Your task to perform on an android device: choose inbox layout in the gmail app Image 0: 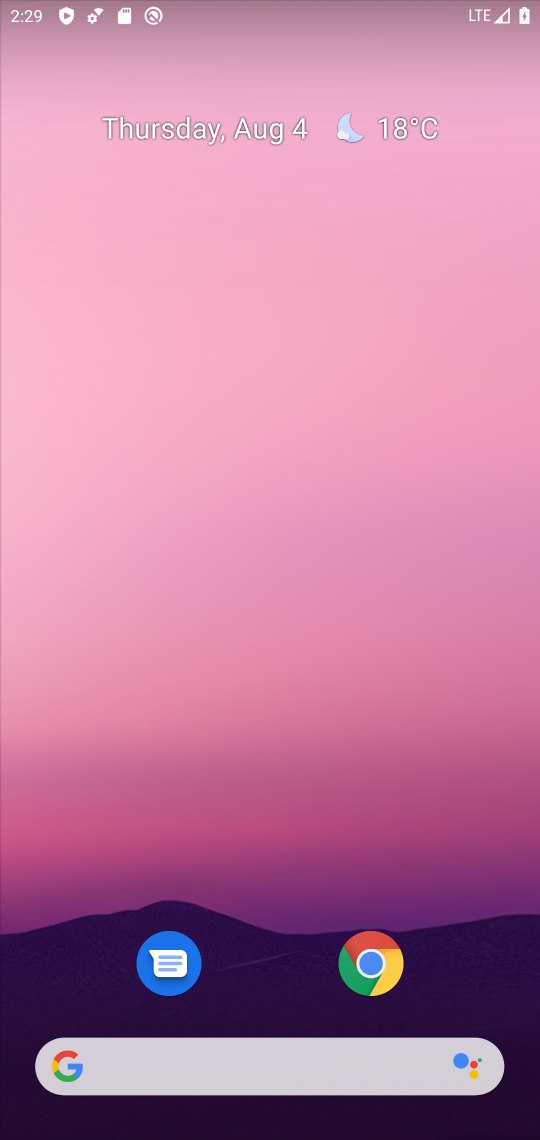
Step 0: drag from (301, 1062) to (229, 217)
Your task to perform on an android device: choose inbox layout in the gmail app Image 1: 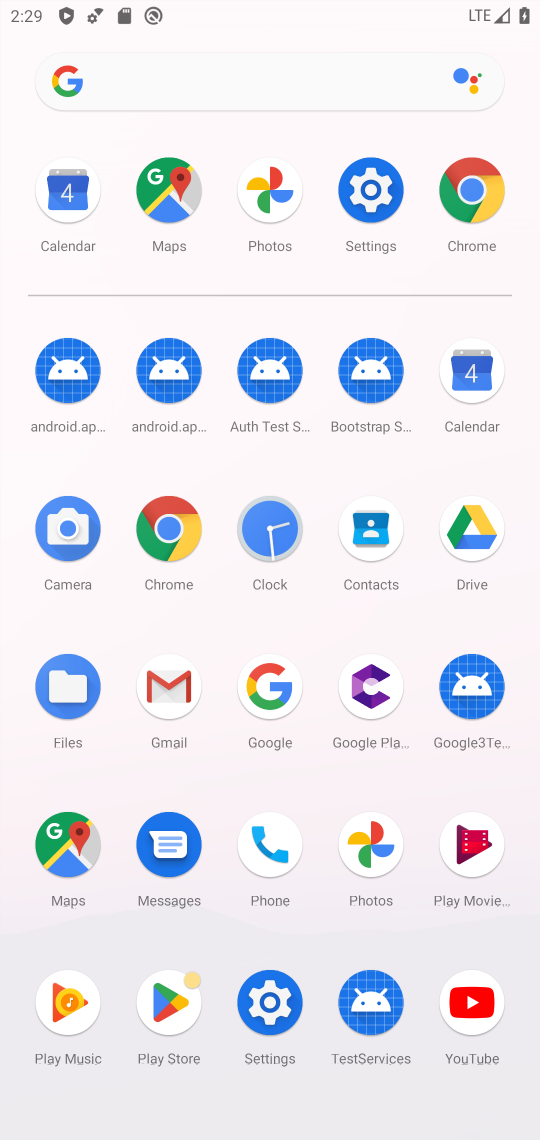
Step 1: click (163, 649)
Your task to perform on an android device: choose inbox layout in the gmail app Image 2: 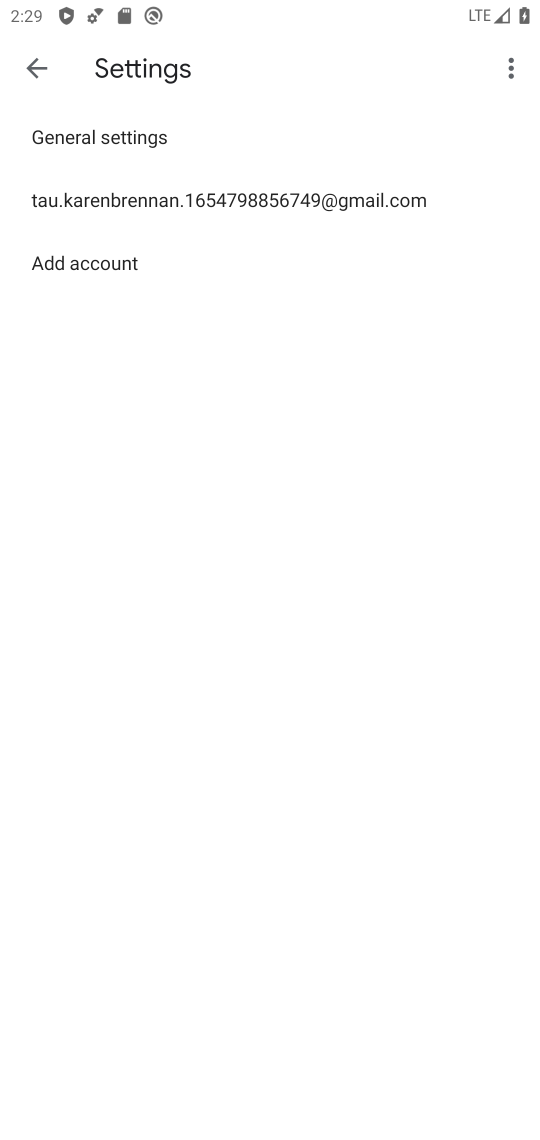
Step 2: click (163, 201)
Your task to perform on an android device: choose inbox layout in the gmail app Image 3: 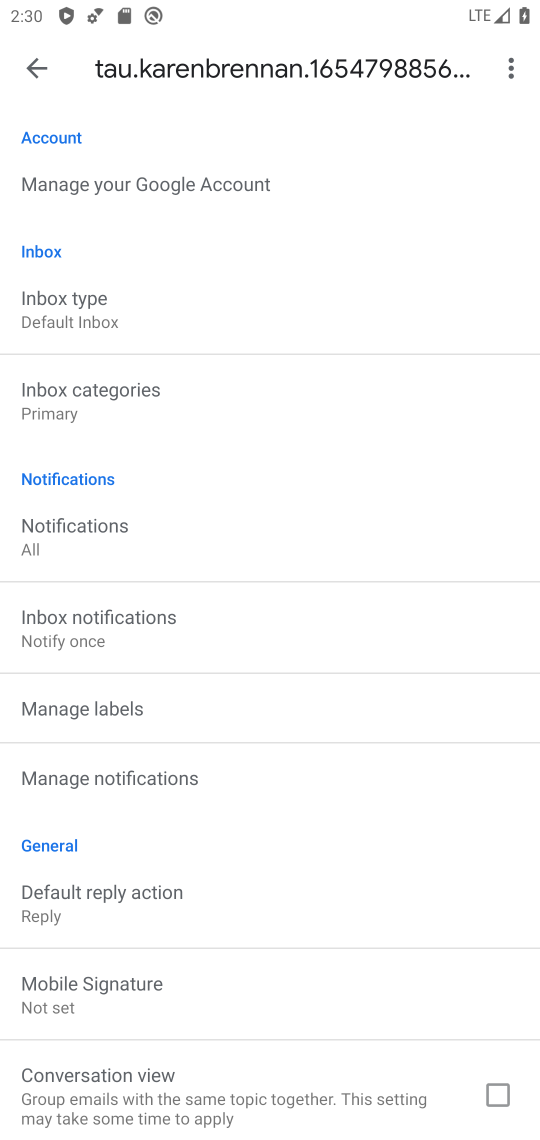
Step 3: click (130, 320)
Your task to perform on an android device: choose inbox layout in the gmail app Image 4: 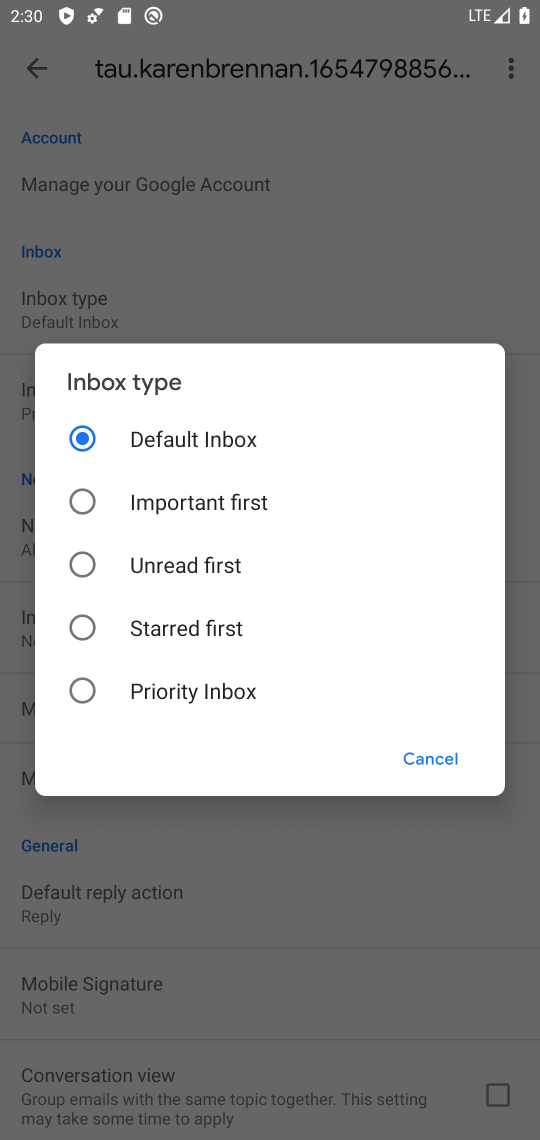
Step 4: click (150, 724)
Your task to perform on an android device: choose inbox layout in the gmail app Image 5: 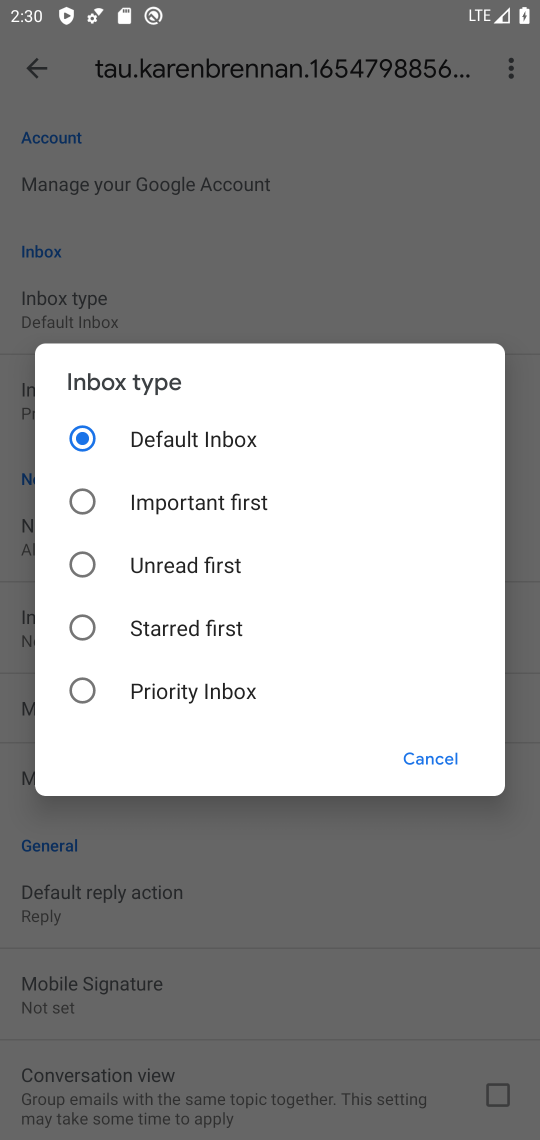
Step 5: click (152, 699)
Your task to perform on an android device: choose inbox layout in the gmail app Image 6: 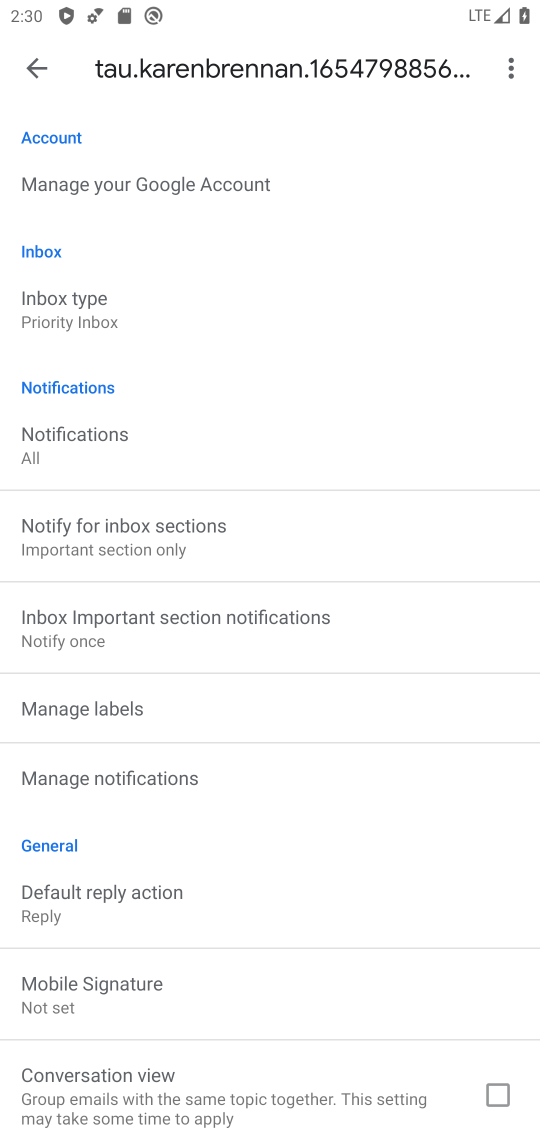
Step 6: task complete